Your task to perform on an android device: turn on showing notifications on the lock screen Image 0: 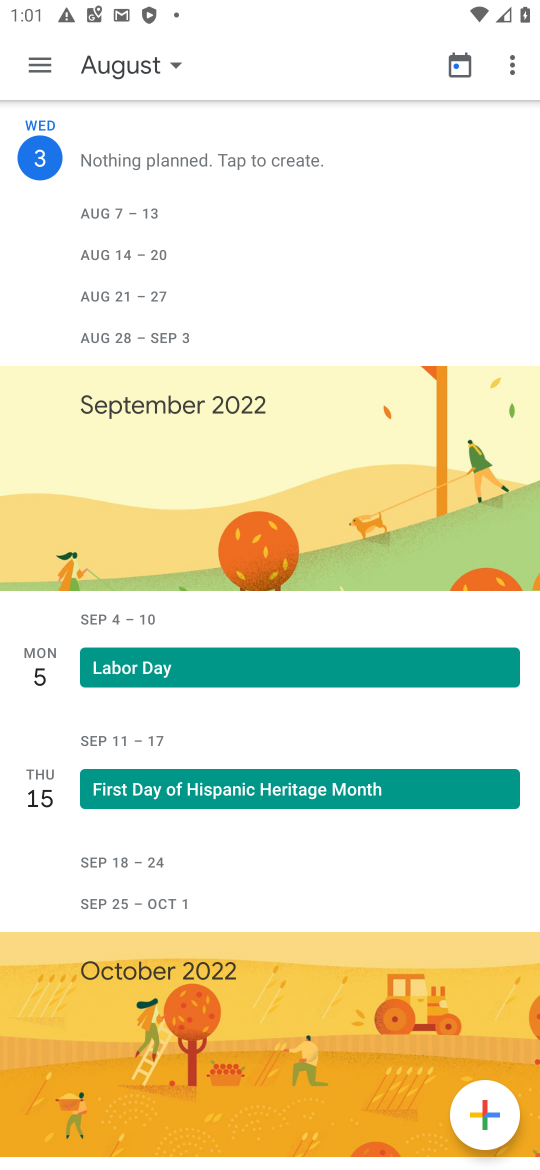
Step 0: press home button
Your task to perform on an android device: turn on showing notifications on the lock screen Image 1: 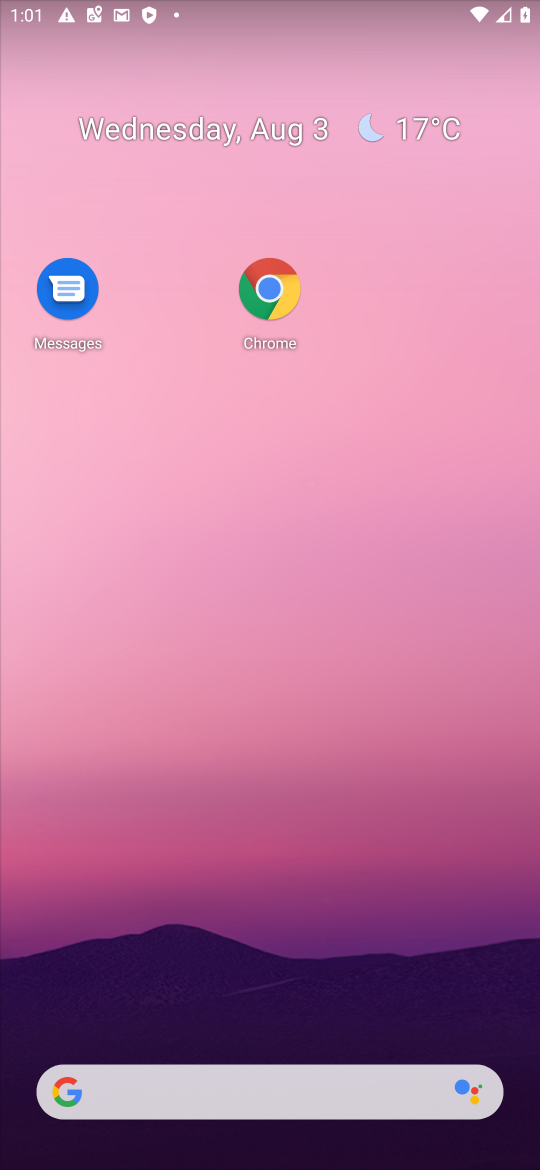
Step 1: click (395, 829)
Your task to perform on an android device: turn on showing notifications on the lock screen Image 2: 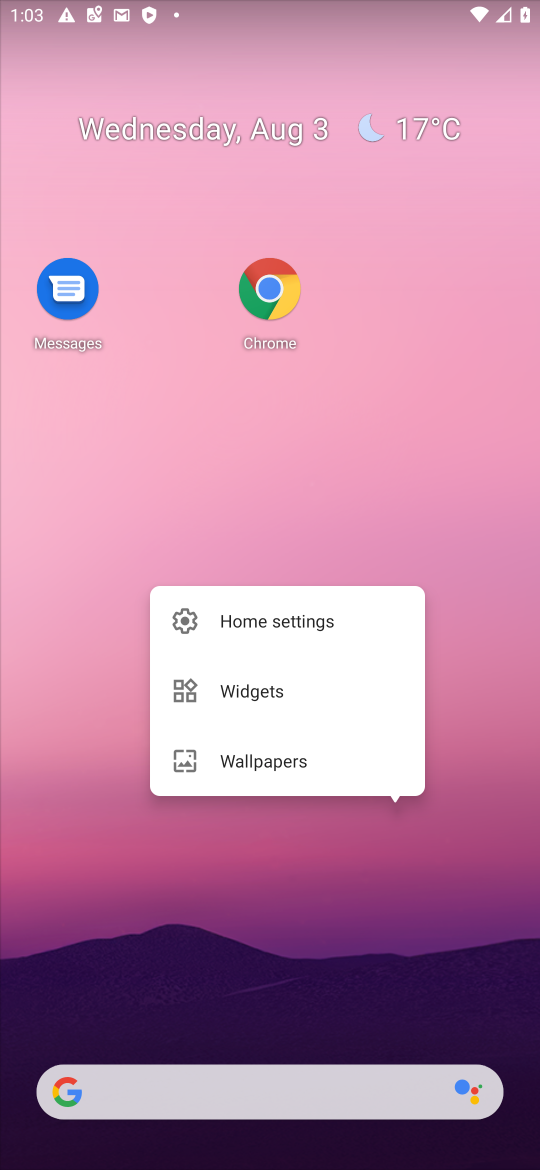
Step 2: drag from (257, 936) to (213, 290)
Your task to perform on an android device: turn on showing notifications on the lock screen Image 3: 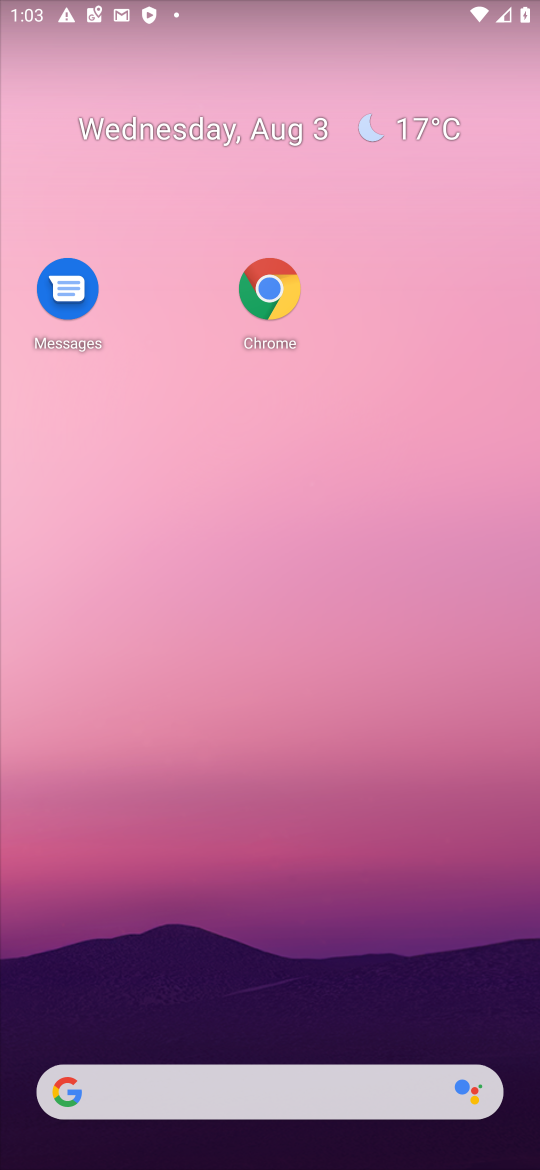
Step 3: drag from (263, 943) to (253, 395)
Your task to perform on an android device: turn on showing notifications on the lock screen Image 4: 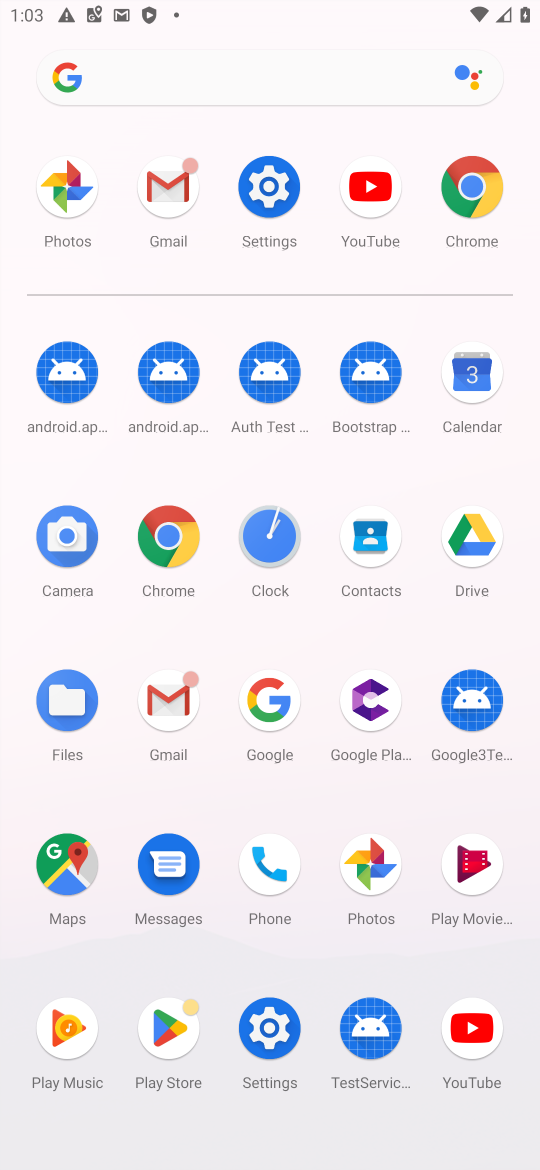
Step 4: click (279, 181)
Your task to perform on an android device: turn on showing notifications on the lock screen Image 5: 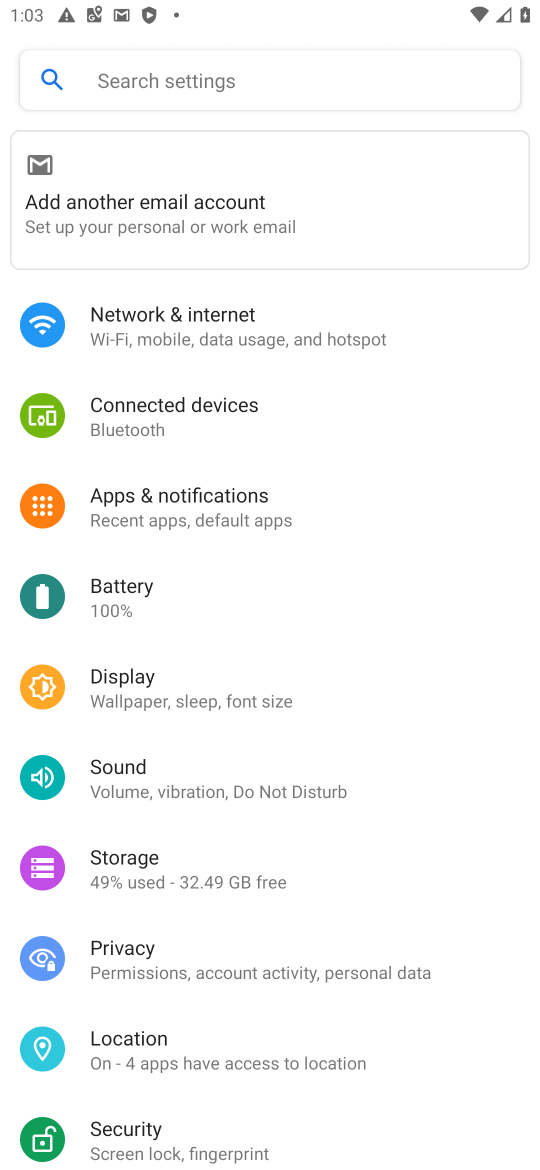
Step 5: click (218, 510)
Your task to perform on an android device: turn on showing notifications on the lock screen Image 6: 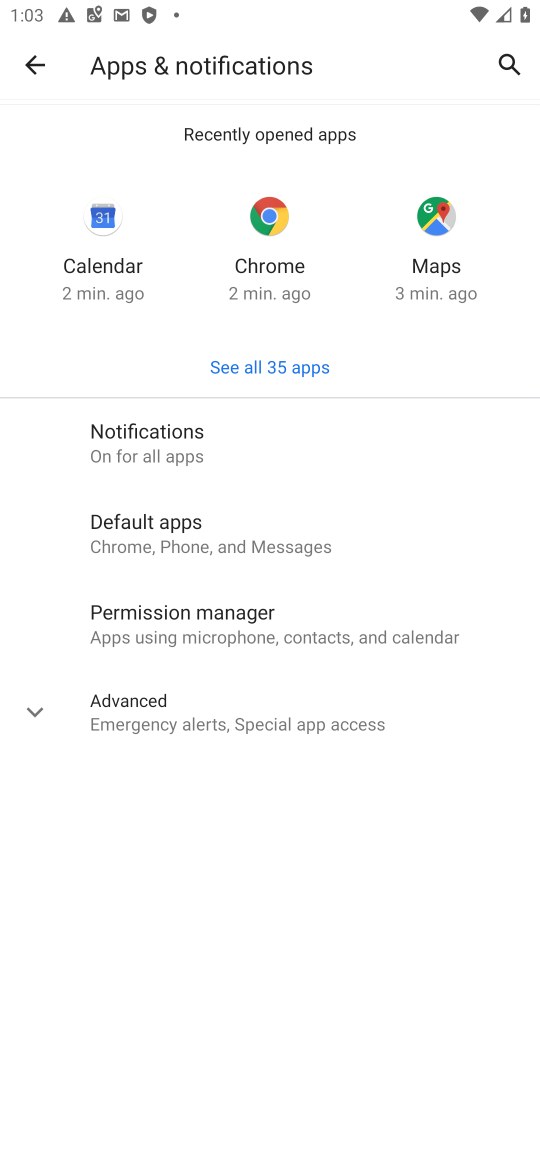
Step 6: click (347, 467)
Your task to perform on an android device: turn on showing notifications on the lock screen Image 7: 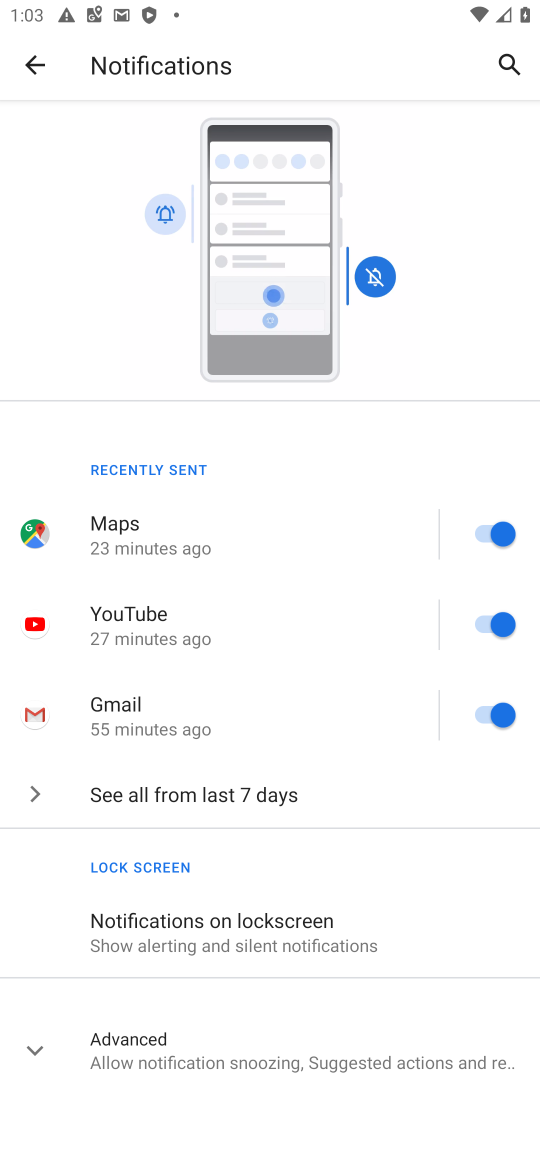
Step 7: click (318, 918)
Your task to perform on an android device: turn on showing notifications on the lock screen Image 8: 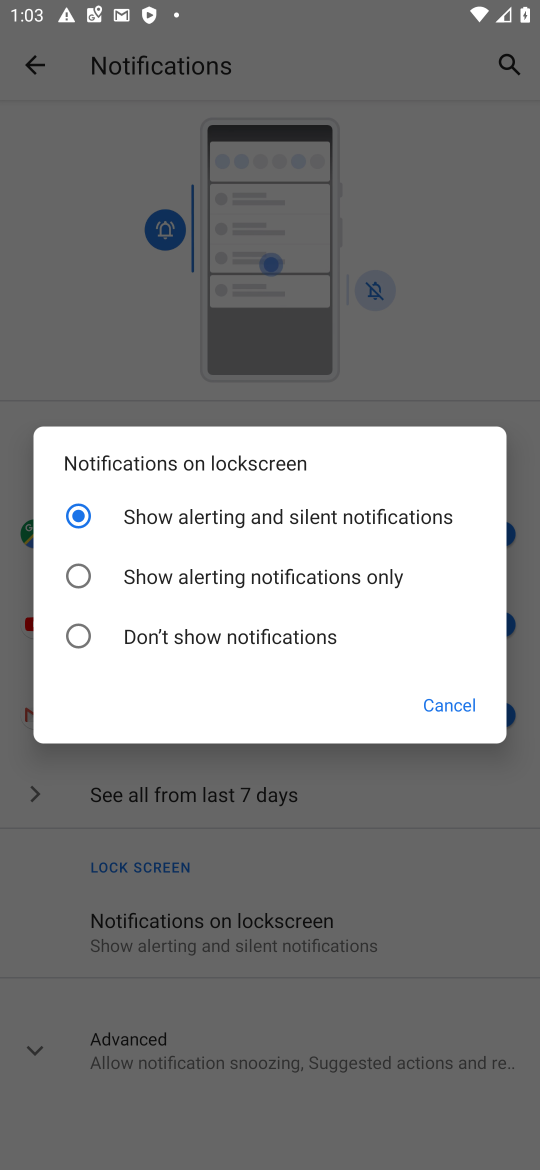
Step 8: click (305, 645)
Your task to perform on an android device: turn on showing notifications on the lock screen Image 9: 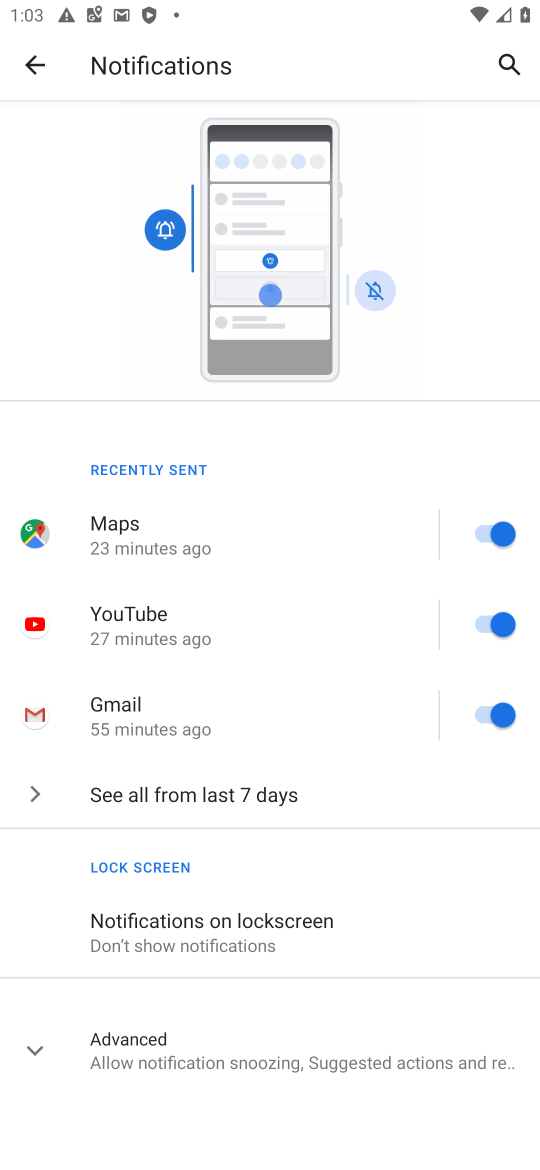
Step 9: task complete